Your task to perform on an android device: Is it going to rain today? Image 0: 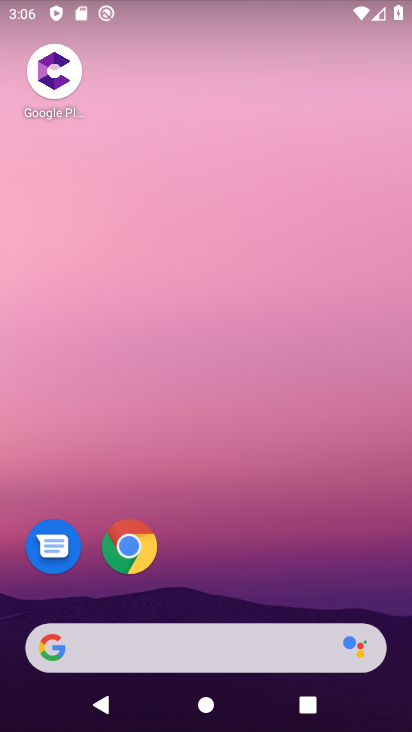
Step 0: click (199, 639)
Your task to perform on an android device: Is it going to rain today? Image 1: 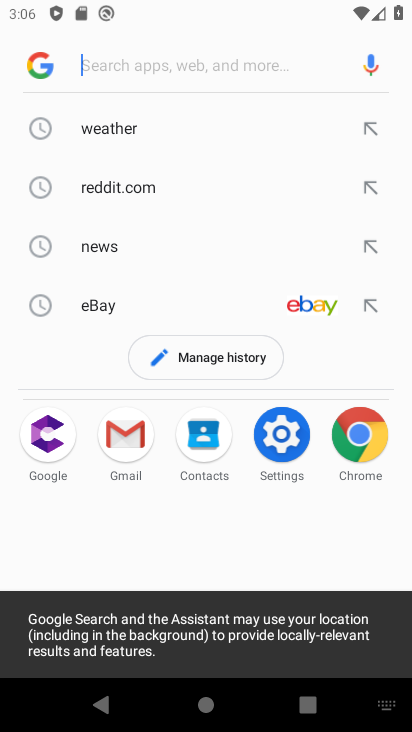
Step 1: click (137, 128)
Your task to perform on an android device: Is it going to rain today? Image 2: 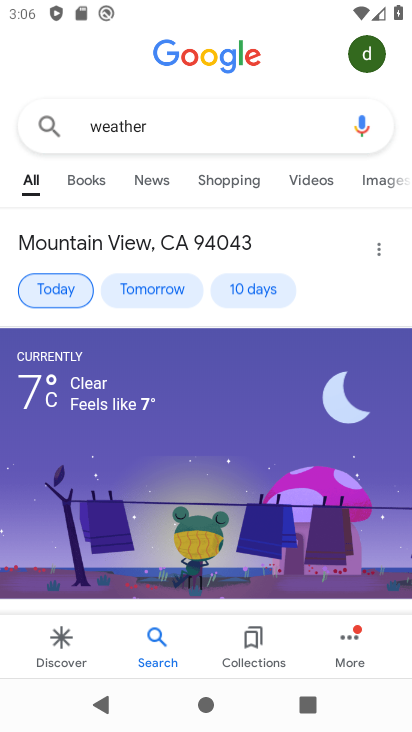
Step 2: task complete